Your task to perform on an android device: What is the news today? Image 0: 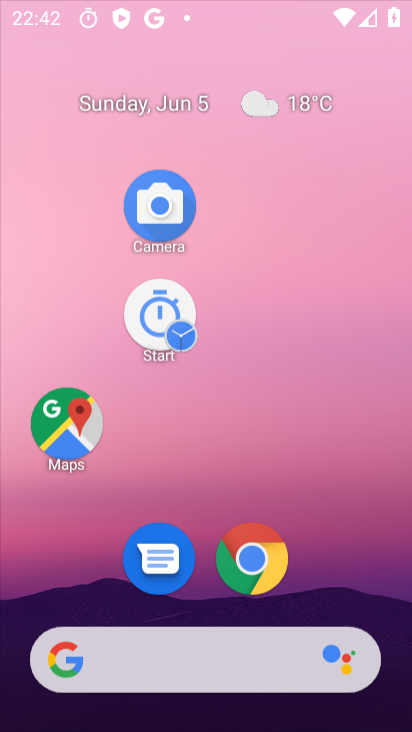
Step 0: drag from (286, 710) to (183, 119)
Your task to perform on an android device: What is the news today? Image 1: 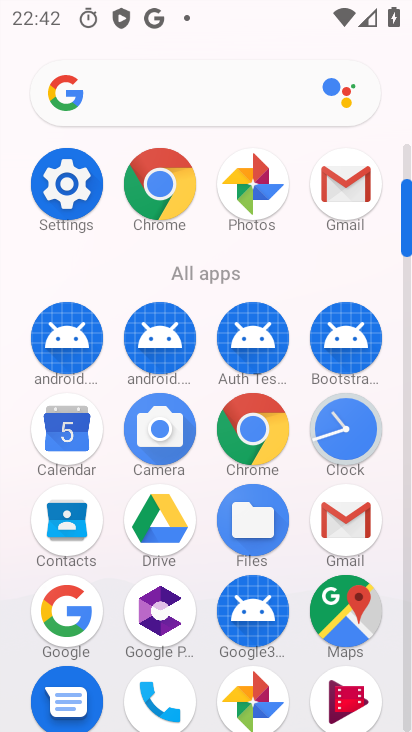
Step 1: press back button
Your task to perform on an android device: What is the news today? Image 2: 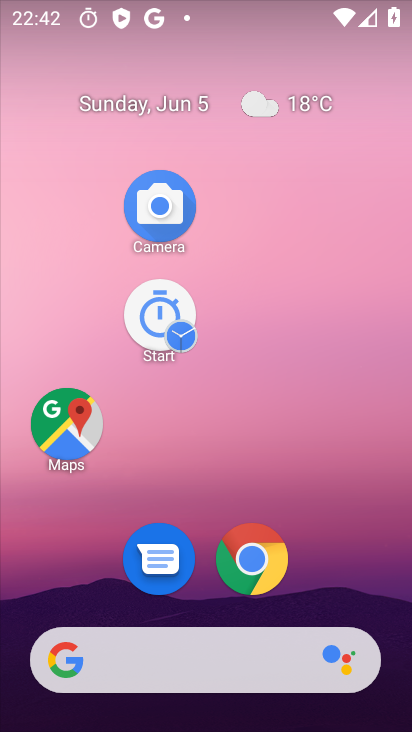
Step 2: drag from (0, 225) to (367, 399)
Your task to perform on an android device: What is the news today? Image 3: 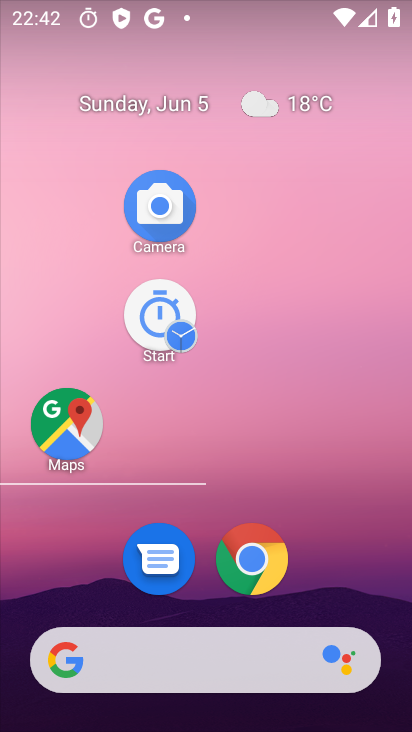
Step 3: drag from (0, 195) to (399, 548)
Your task to perform on an android device: What is the news today? Image 4: 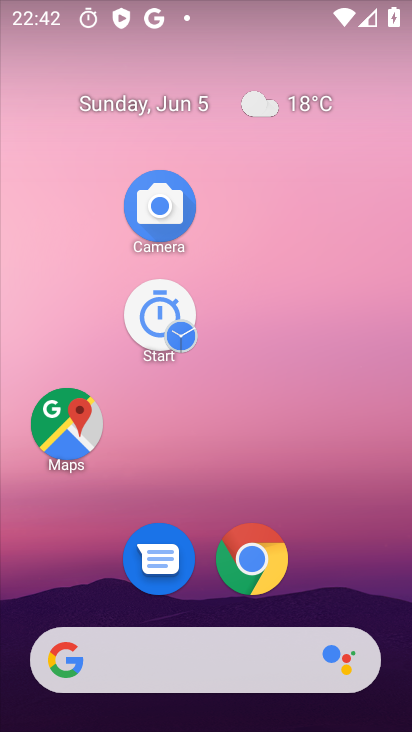
Step 4: drag from (13, 212) to (405, 358)
Your task to perform on an android device: What is the news today? Image 5: 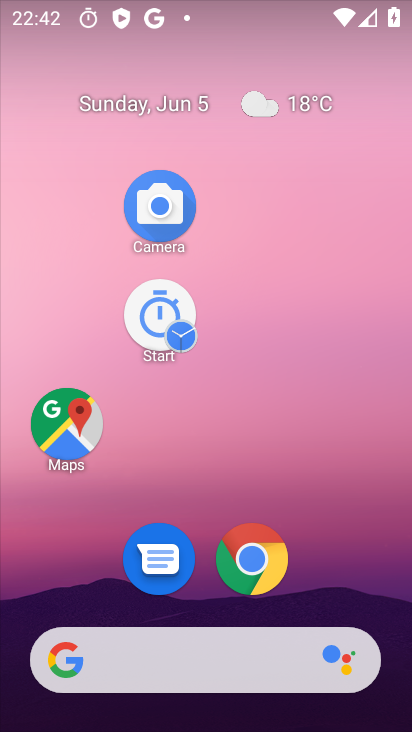
Step 5: drag from (58, 221) to (391, 505)
Your task to perform on an android device: What is the news today? Image 6: 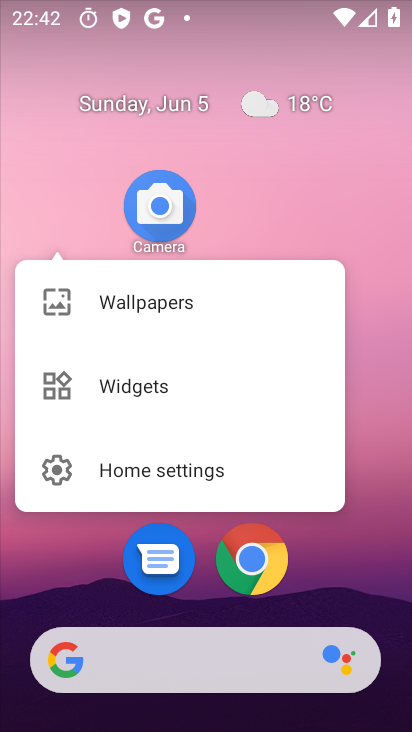
Step 6: click (242, 192)
Your task to perform on an android device: What is the news today? Image 7: 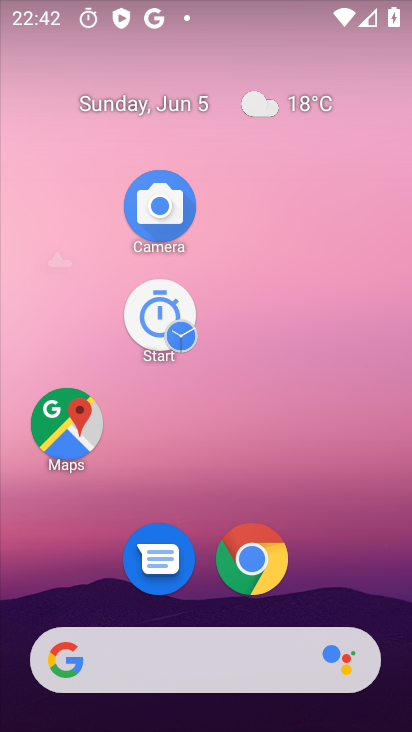
Step 7: click (242, 191)
Your task to perform on an android device: What is the news today? Image 8: 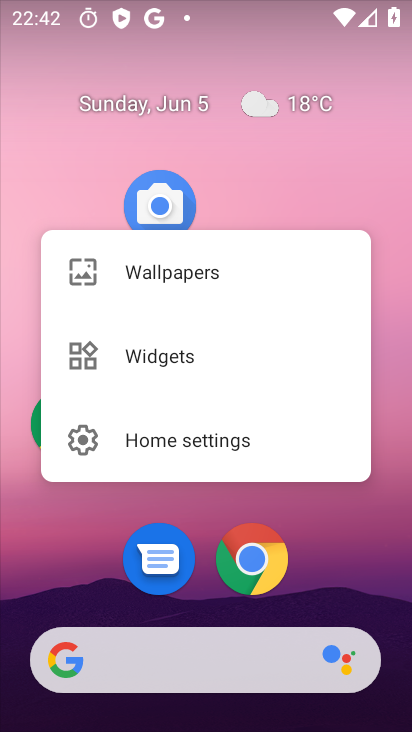
Step 8: task complete